Your task to perform on an android device: Go to location settings Image 0: 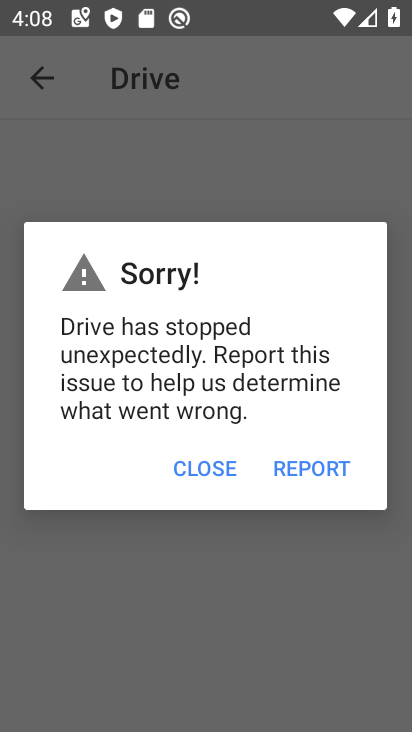
Step 0: click (234, 464)
Your task to perform on an android device: Go to location settings Image 1: 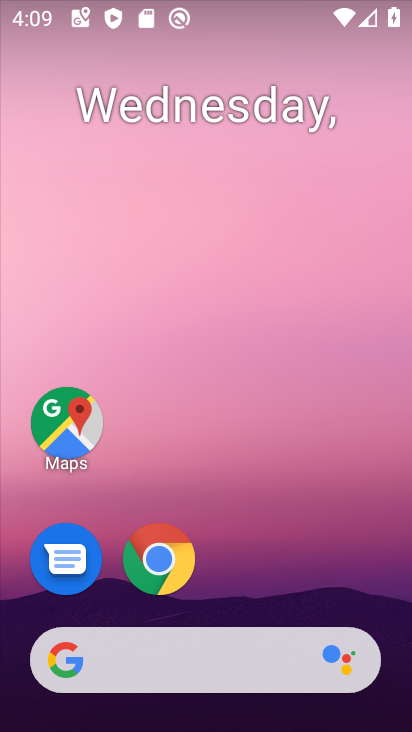
Step 1: drag from (342, 655) to (399, 178)
Your task to perform on an android device: Go to location settings Image 2: 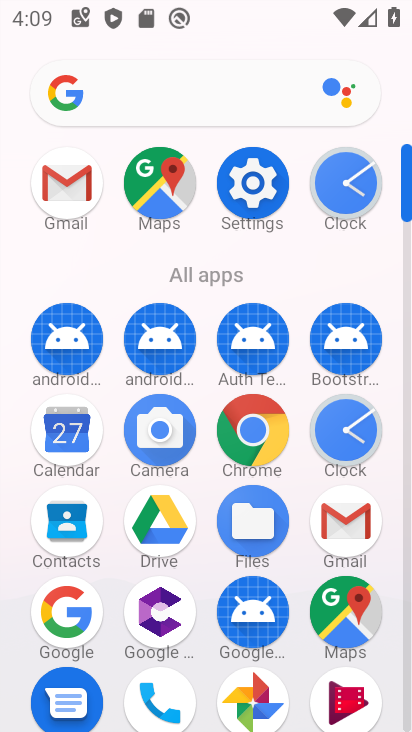
Step 2: click (276, 177)
Your task to perform on an android device: Go to location settings Image 3: 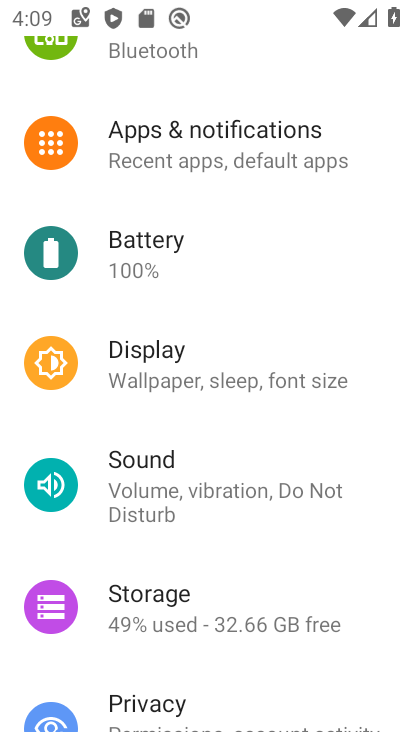
Step 3: click (241, 179)
Your task to perform on an android device: Go to location settings Image 4: 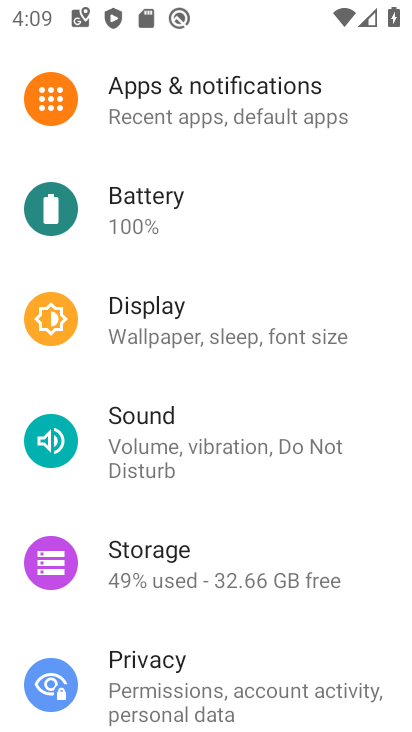
Step 4: drag from (219, 610) to (309, 70)
Your task to perform on an android device: Go to location settings Image 5: 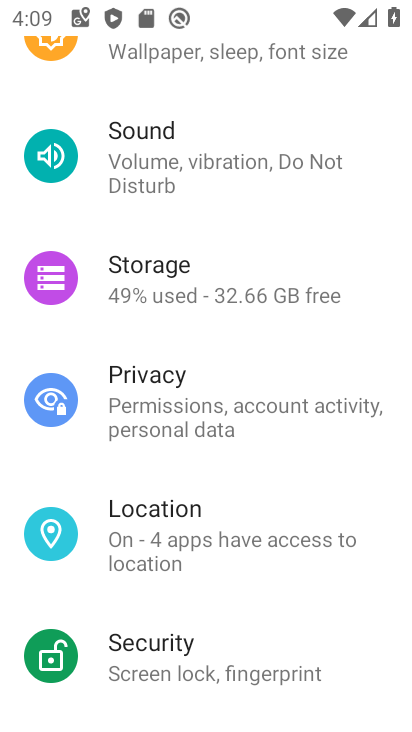
Step 5: click (167, 525)
Your task to perform on an android device: Go to location settings Image 6: 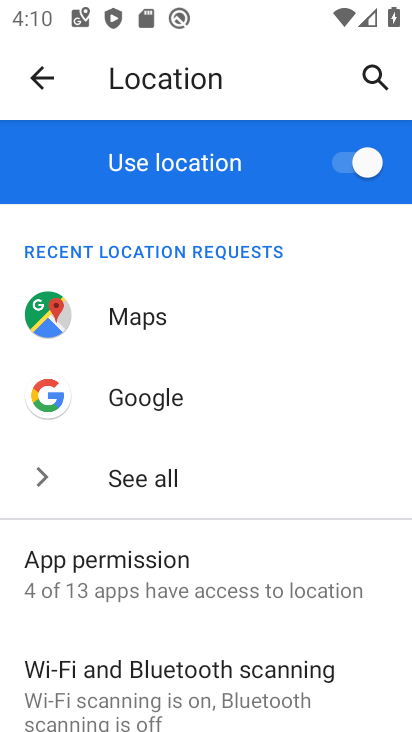
Step 6: task complete